Your task to perform on an android device: Is it going to rain this weekend? Image 0: 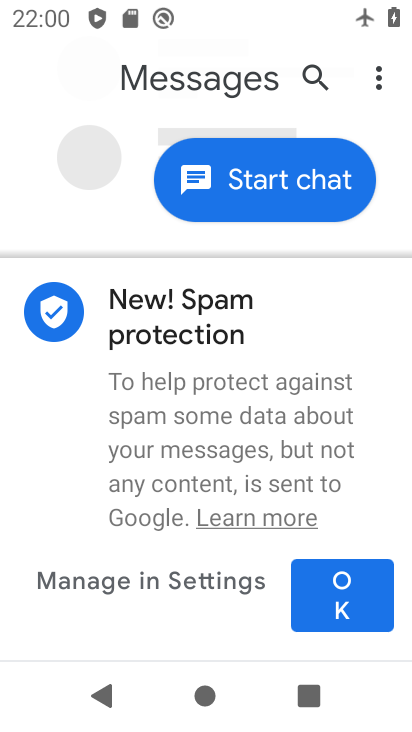
Step 0: press home button
Your task to perform on an android device: Is it going to rain this weekend? Image 1: 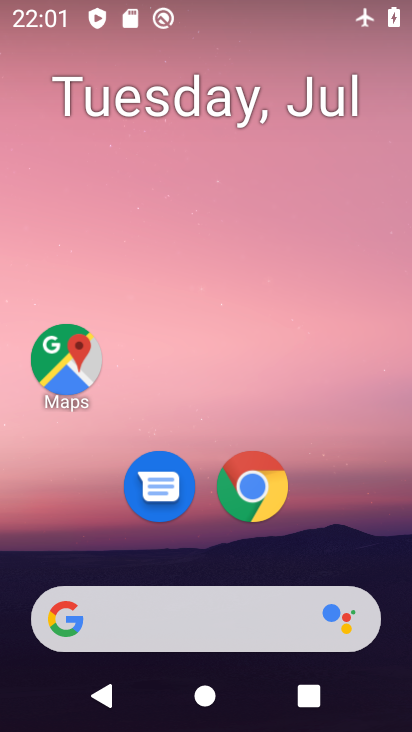
Step 1: click (253, 618)
Your task to perform on an android device: Is it going to rain this weekend? Image 2: 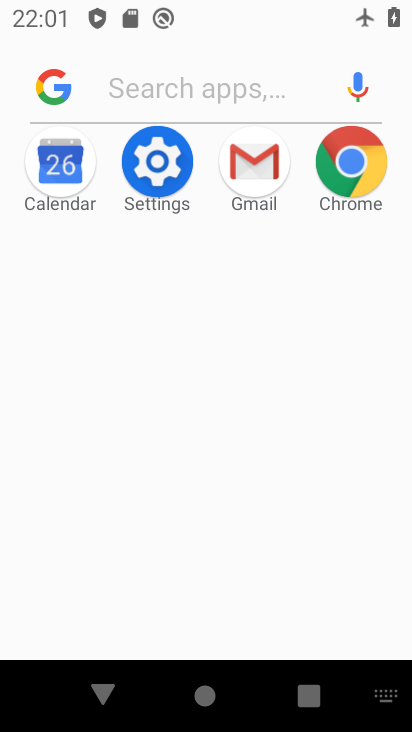
Step 2: type "weather"
Your task to perform on an android device: Is it going to rain this weekend? Image 3: 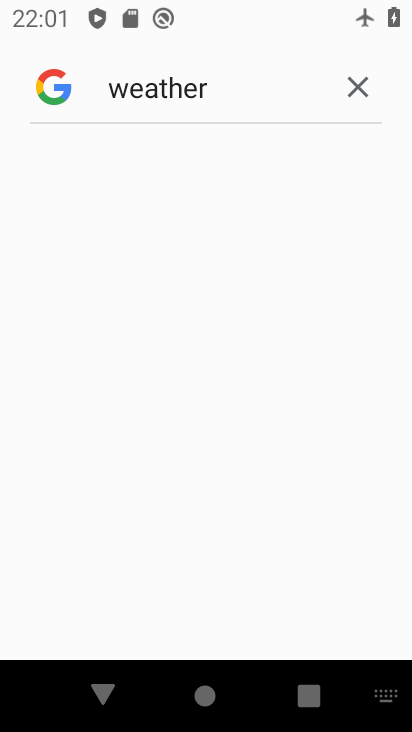
Step 3: task complete